Your task to perform on an android device: turn off notifications settings in the gmail app Image 0: 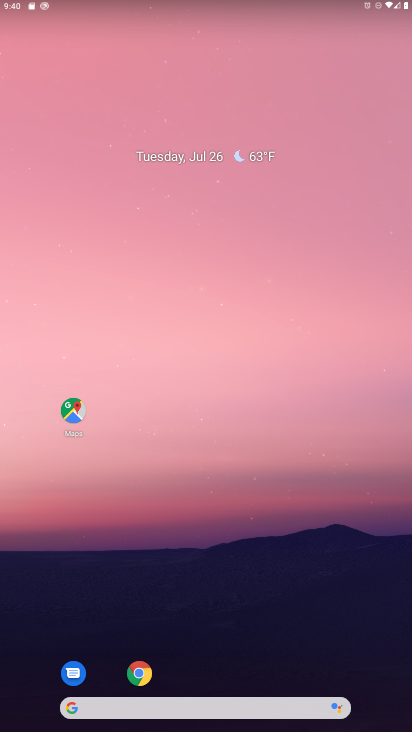
Step 0: drag from (353, 659) to (118, 35)
Your task to perform on an android device: turn off notifications settings in the gmail app Image 1: 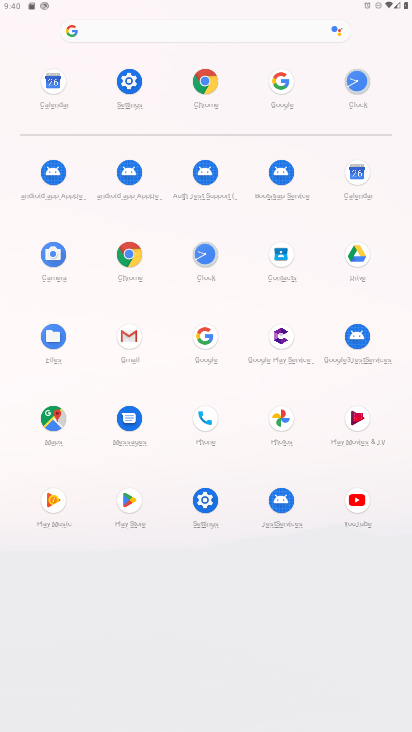
Step 1: click (134, 350)
Your task to perform on an android device: turn off notifications settings in the gmail app Image 2: 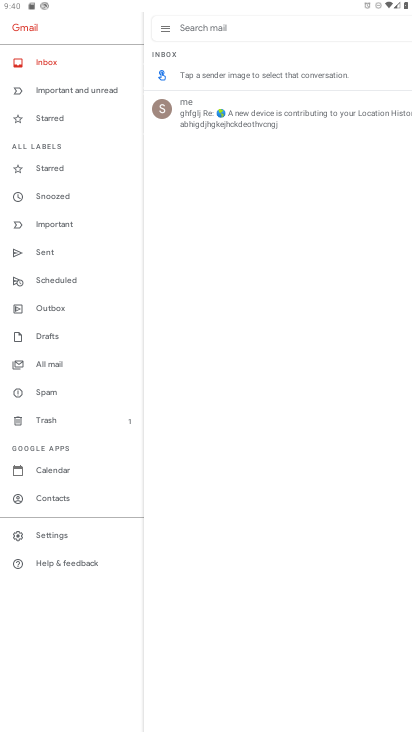
Step 2: click (57, 534)
Your task to perform on an android device: turn off notifications settings in the gmail app Image 3: 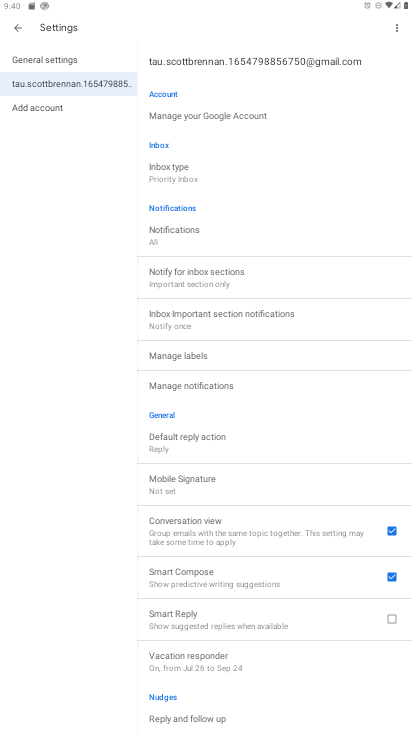
Step 3: click (194, 237)
Your task to perform on an android device: turn off notifications settings in the gmail app Image 4: 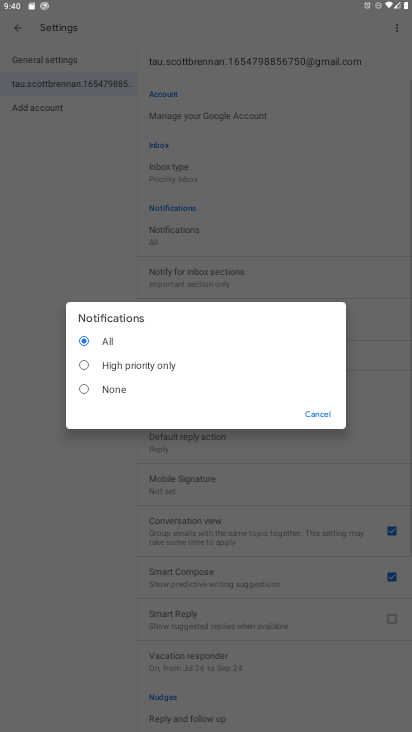
Step 4: click (84, 387)
Your task to perform on an android device: turn off notifications settings in the gmail app Image 5: 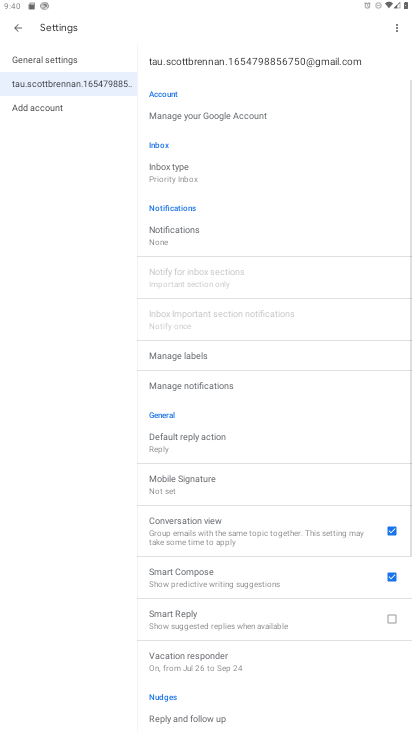
Step 5: task complete